Your task to perform on an android device: set the timer Image 0: 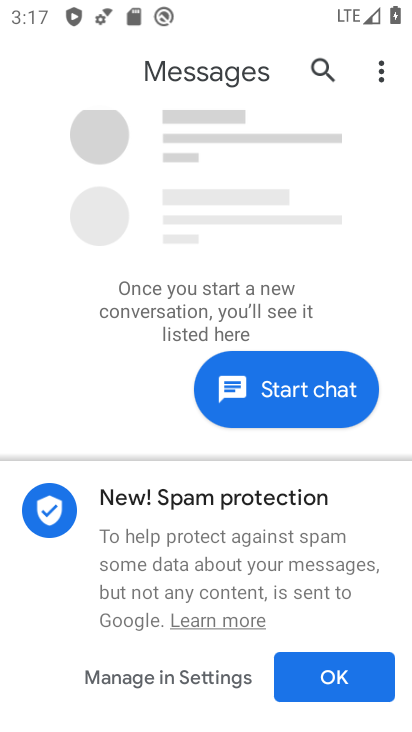
Step 0: press home button
Your task to perform on an android device: set the timer Image 1: 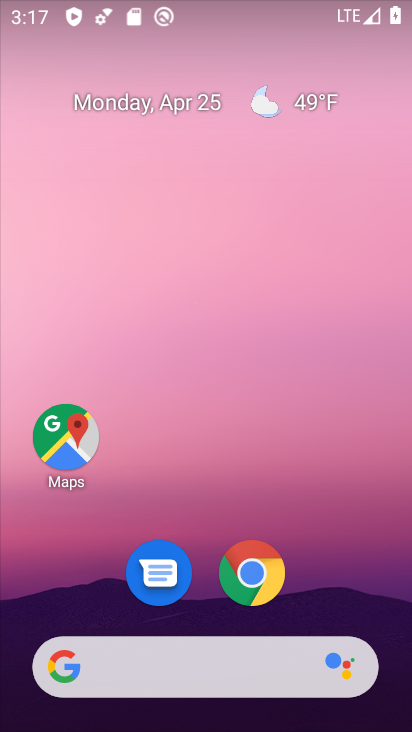
Step 1: drag from (356, 607) to (256, 1)
Your task to perform on an android device: set the timer Image 2: 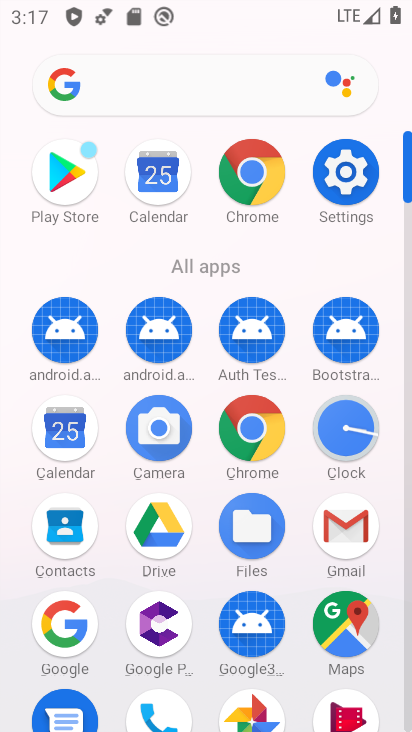
Step 2: click (333, 404)
Your task to perform on an android device: set the timer Image 3: 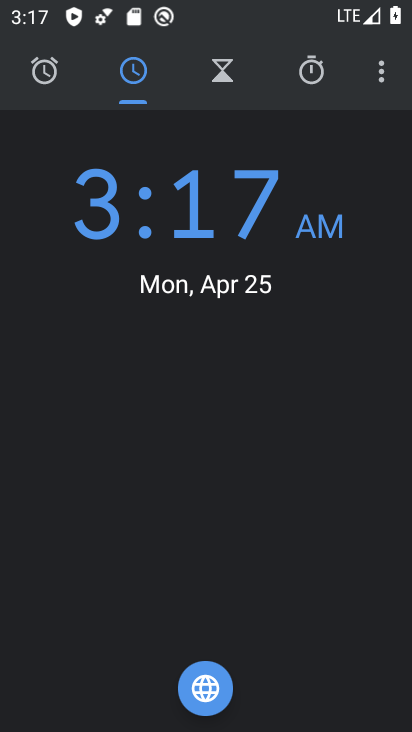
Step 3: click (214, 66)
Your task to perform on an android device: set the timer Image 4: 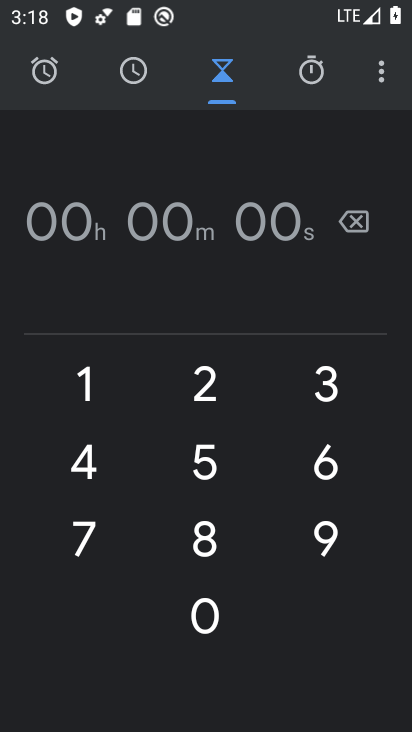
Step 4: click (223, 449)
Your task to perform on an android device: set the timer Image 5: 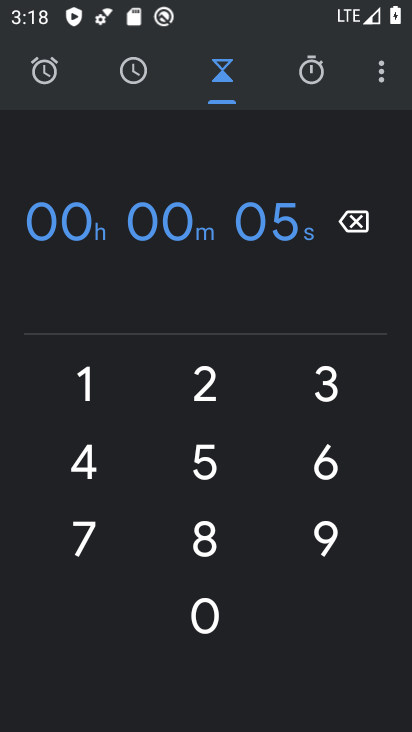
Step 5: click (219, 531)
Your task to perform on an android device: set the timer Image 6: 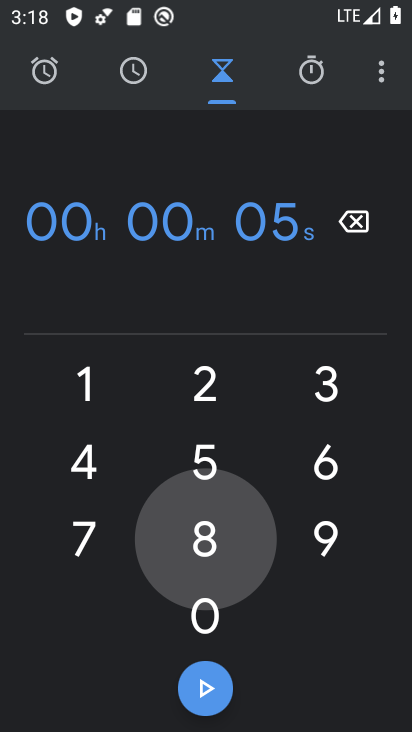
Step 6: click (222, 370)
Your task to perform on an android device: set the timer Image 7: 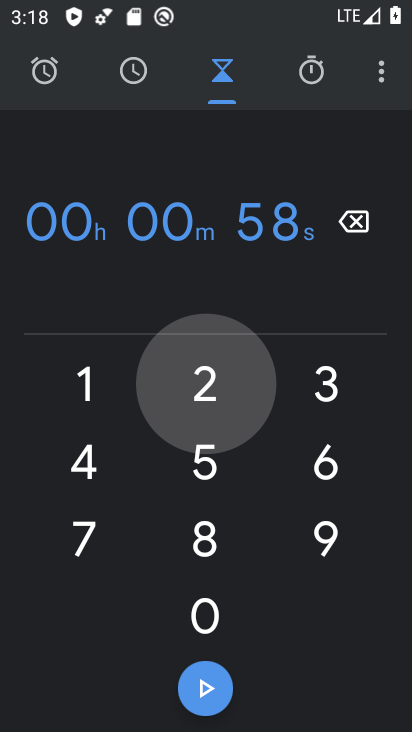
Step 7: click (94, 371)
Your task to perform on an android device: set the timer Image 8: 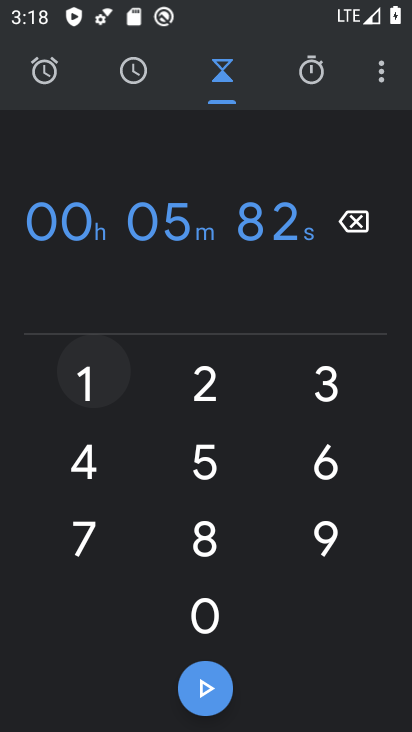
Step 8: click (86, 462)
Your task to perform on an android device: set the timer Image 9: 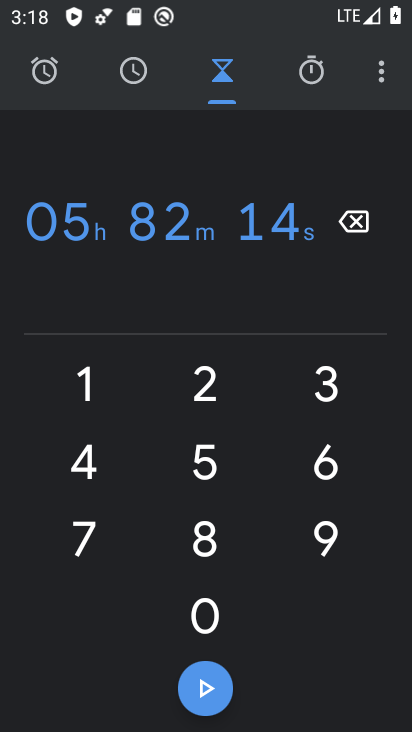
Step 9: click (328, 461)
Your task to perform on an android device: set the timer Image 10: 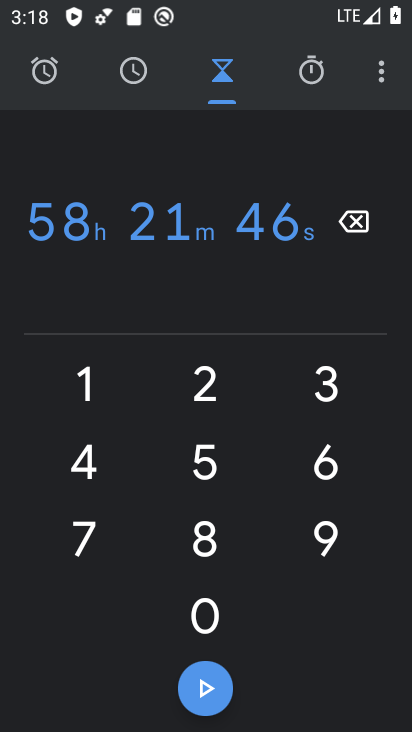
Step 10: task complete